Your task to perform on an android device: What is the news today? Image 0: 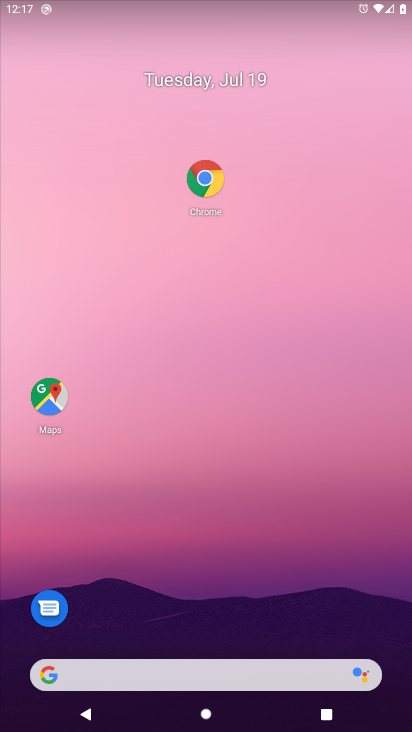
Step 0: drag from (49, 706) to (218, 32)
Your task to perform on an android device: What is the news today? Image 1: 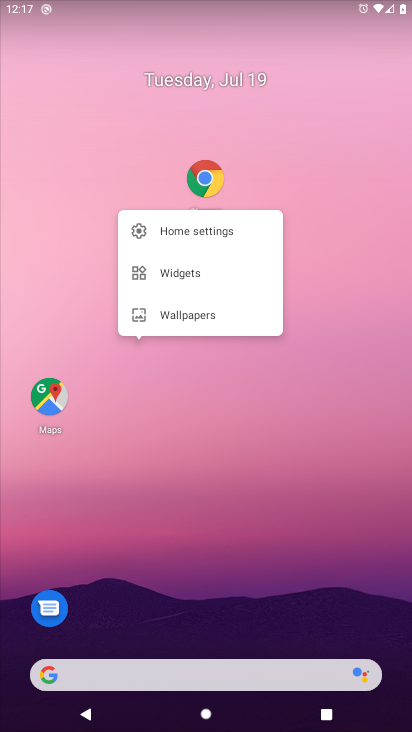
Step 1: click (192, 677)
Your task to perform on an android device: What is the news today? Image 2: 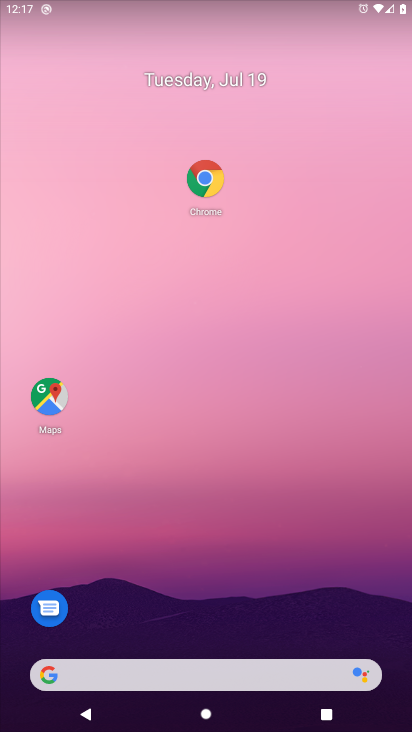
Step 2: click (98, 678)
Your task to perform on an android device: What is the news today? Image 3: 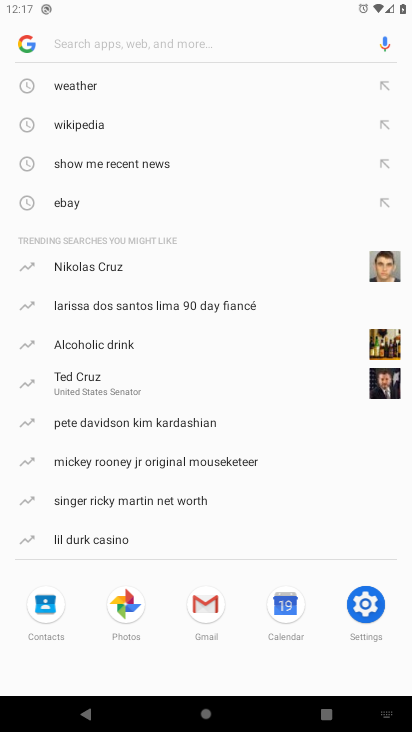
Step 3: click (64, 39)
Your task to perform on an android device: What is the news today? Image 4: 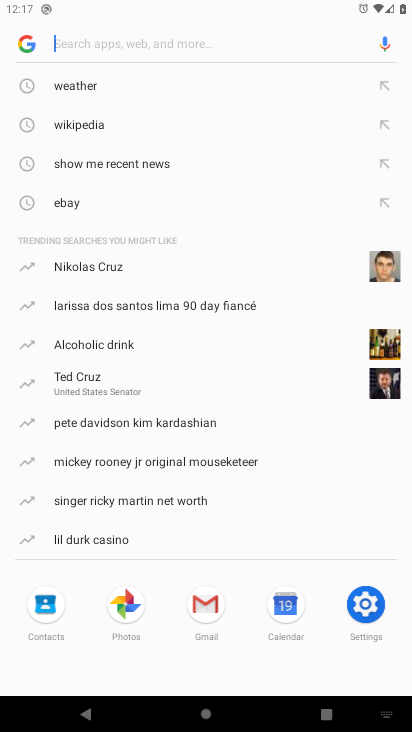
Step 4: type "What is the news today?"
Your task to perform on an android device: What is the news today? Image 5: 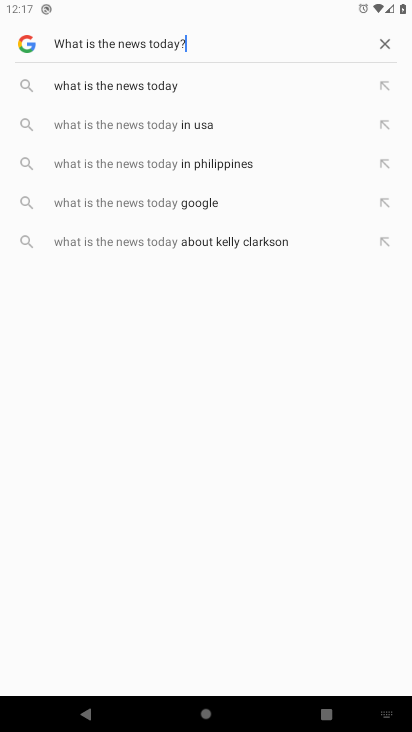
Step 5: type ""
Your task to perform on an android device: What is the news today? Image 6: 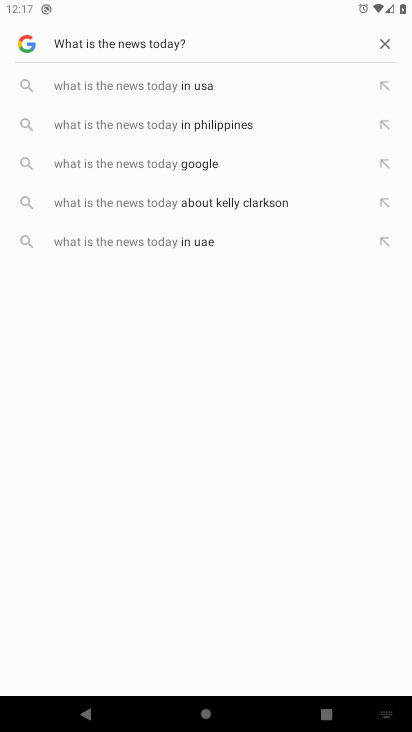
Step 6: type ""
Your task to perform on an android device: What is the news today? Image 7: 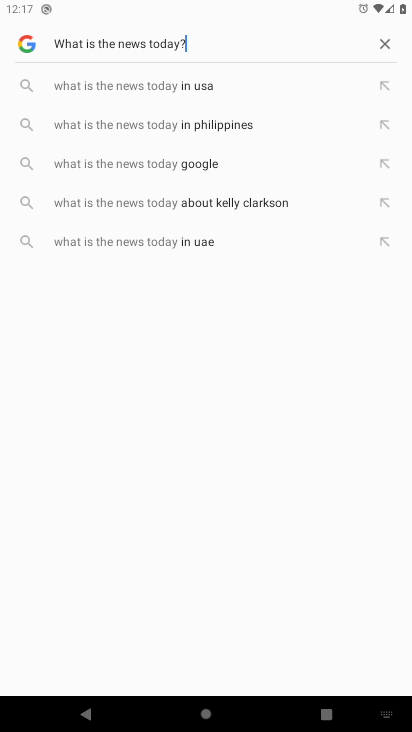
Step 7: type ""
Your task to perform on an android device: What is the news today? Image 8: 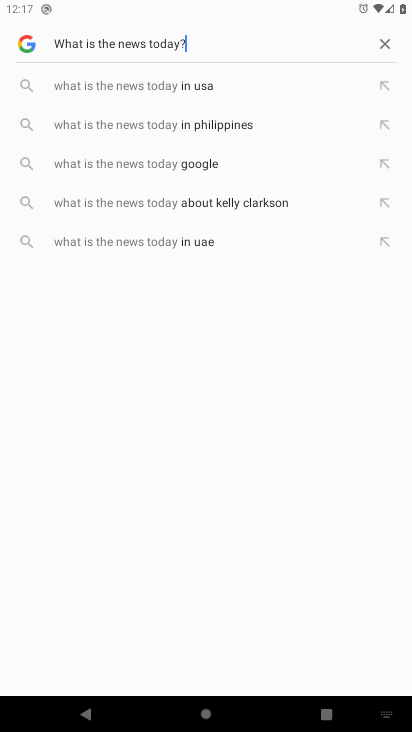
Step 8: task complete